Your task to perform on an android device: allow notifications from all sites in the chrome app Image 0: 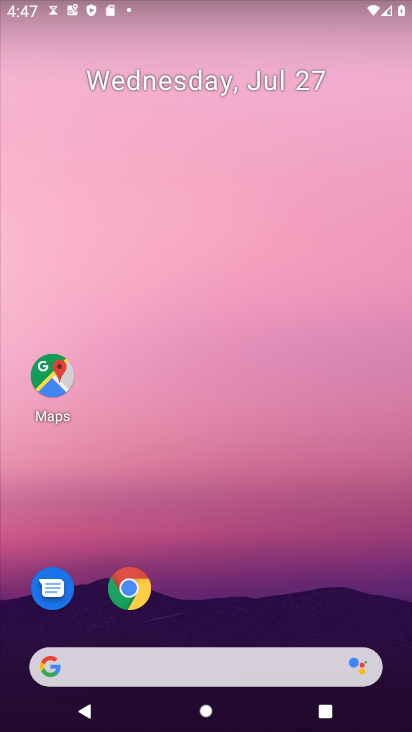
Step 0: drag from (235, 714) to (235, 146)
Your task to perform on an android device: allow notifications from all sites in the chrome app Image 1: 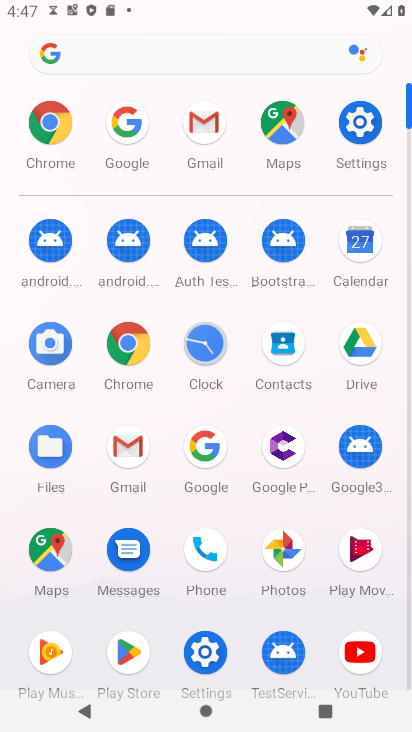
Step 1: click (125, 334)
Your task to perform on an android device: allow notifications from all sites in the chrome app Image 2: 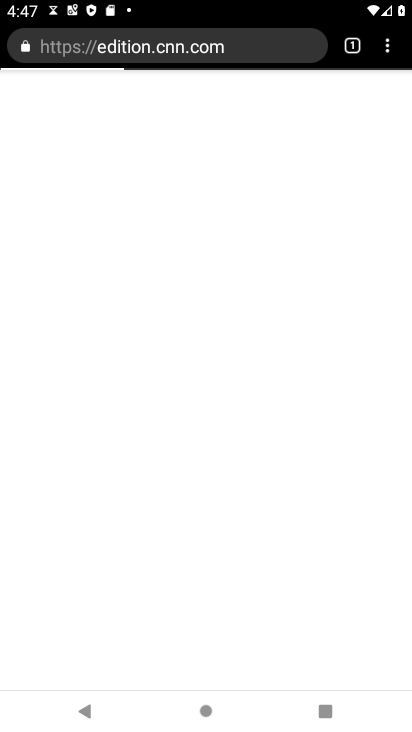
Step 2: click (388, 49)
Your task to perform on an android device: allow notifications from all sites in the chrome app Image 3: 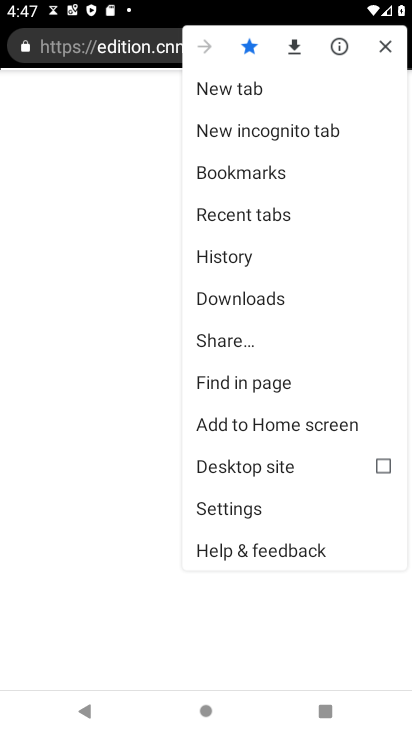
Step 3: click (229, 503)
Your task to perform on an android device: allow notifications from all sites in the chrome app Image 4: 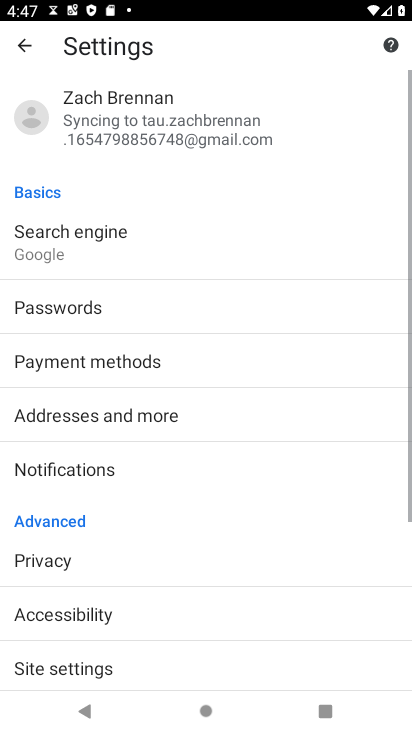
Step 4: drag from (97, 657) to (97, 329)
Your task to perform on an android device: allow notifications from all sites in the chrome app Image 5: 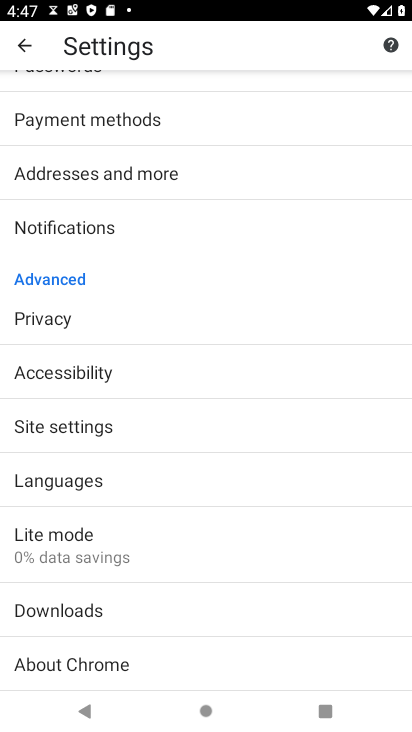
Step 5: click (65, 420)
Your task to perform on an android device: allow notifications from all sites in the chrome app Image 6: 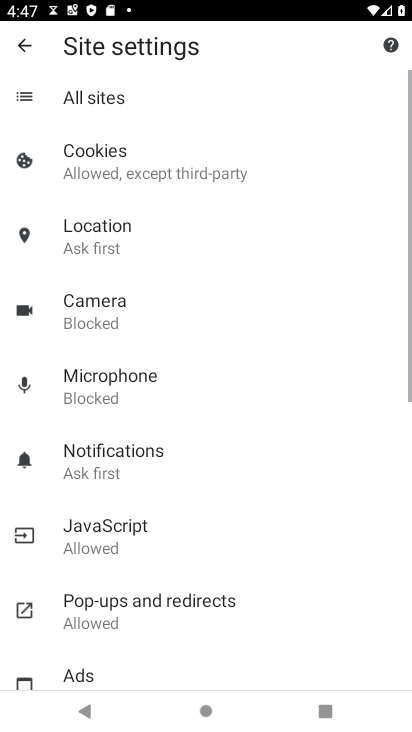
Step 6: click (93, 453)
Your task to perform on an android device: allow notifications from all sites in the chrome app Image 7: 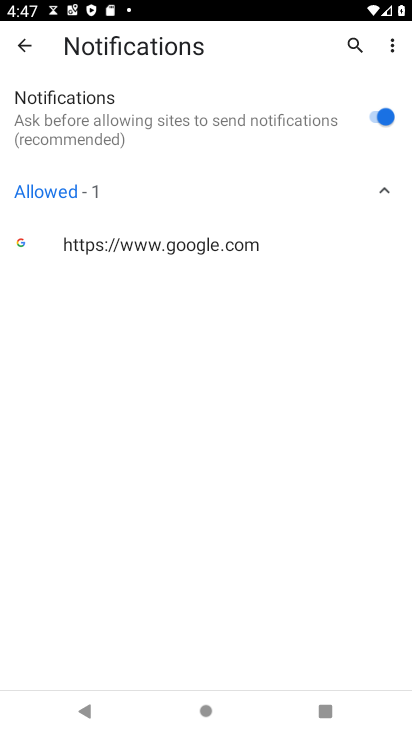
Step 7: task complete